Your task to perform on an android device: Check the weather Image 0: 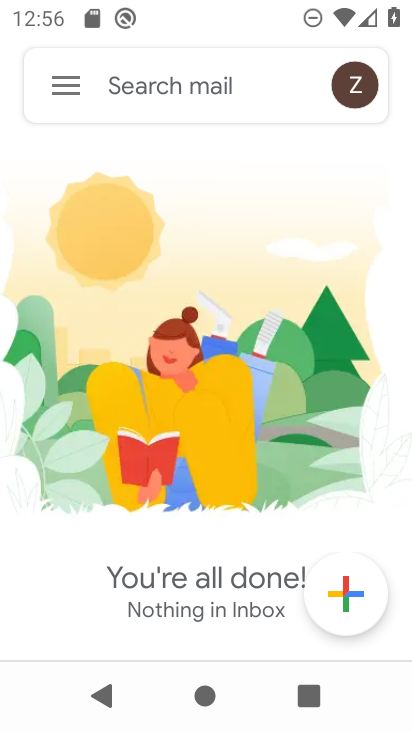
Step 0: press back button
Your task to perform on an android device: Check the weather Image 1: 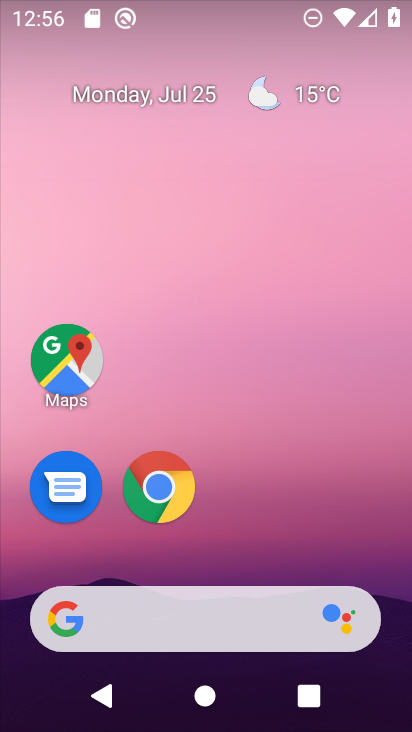
Step 1: click (234, 608)
Your task to perform on an android device: Check the weather Image 2: 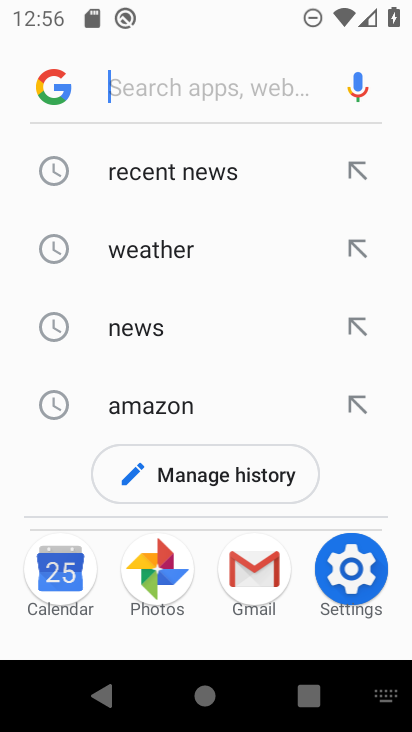
Step 2: click (154, 255)
Your task to perform on an android device: Check the weather Image 3: 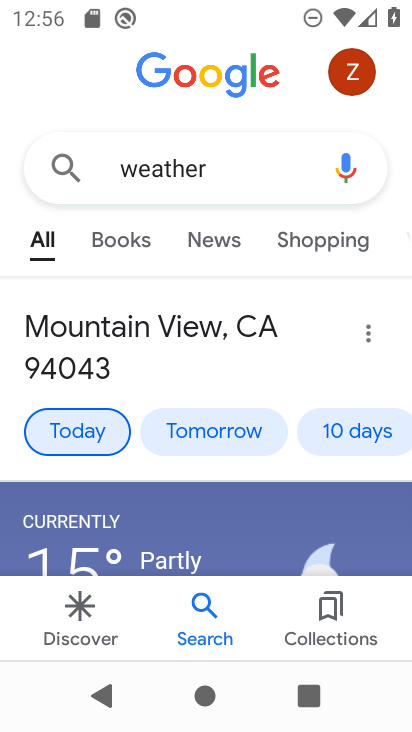
Step 3: task complete